Your task to perform on an android device: Go to Yahoo.com Image 0: 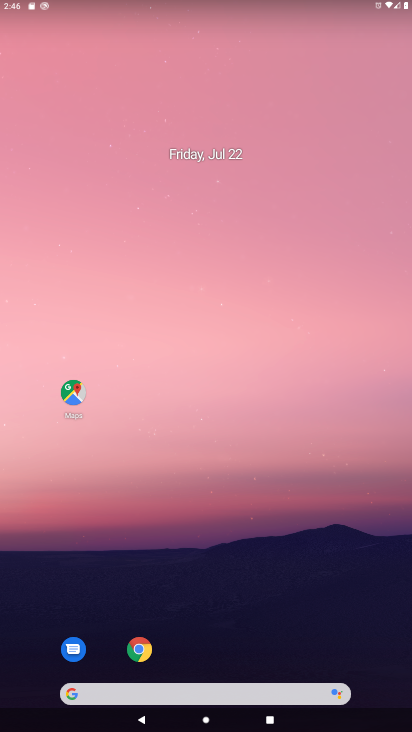
Step 0: click (138, 649)
Your task to perform on an android device: Go to Yahoo.com Image 1: 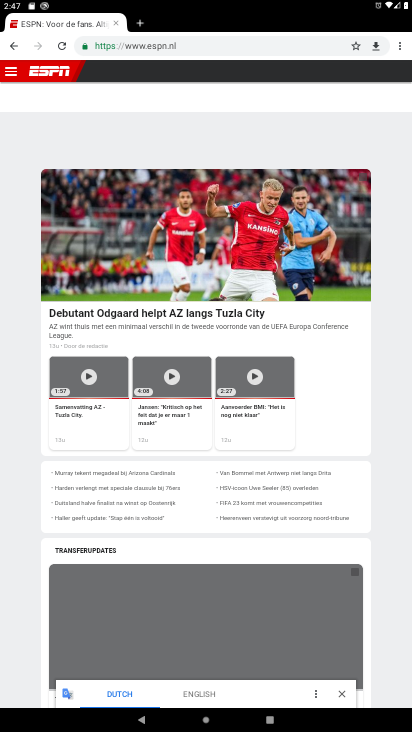
Step 1: click (399, 48)
Your task to perform on an android device: Go to Yahoo.com Image 2: 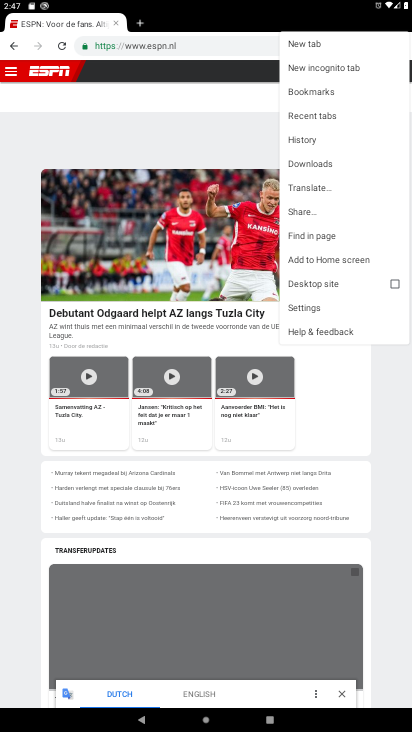
Step 2: click (301, 44)
Your task to perform on an android device: Go to Yahoo.com Image 3: 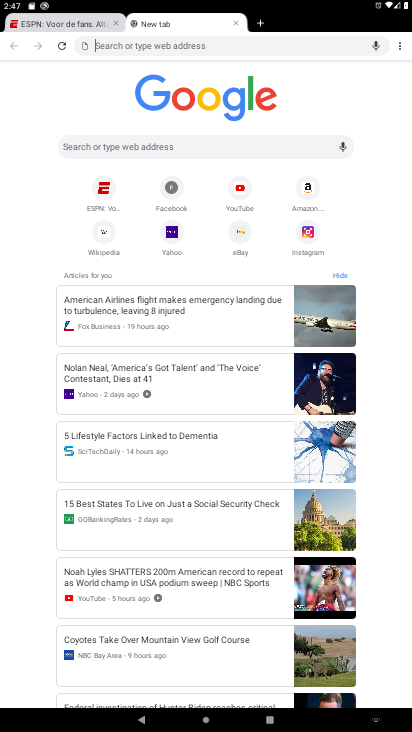
Step 3: click (170, 230)
Your task to perform on an android device: Go to Yahoo.com Image 4: 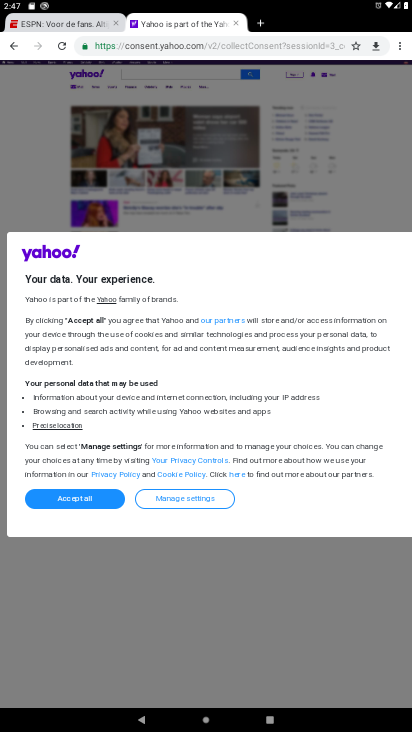
Step 4: click (67, 500)
Your task to perform on an android device: Go to Yahoo.com Image 5: 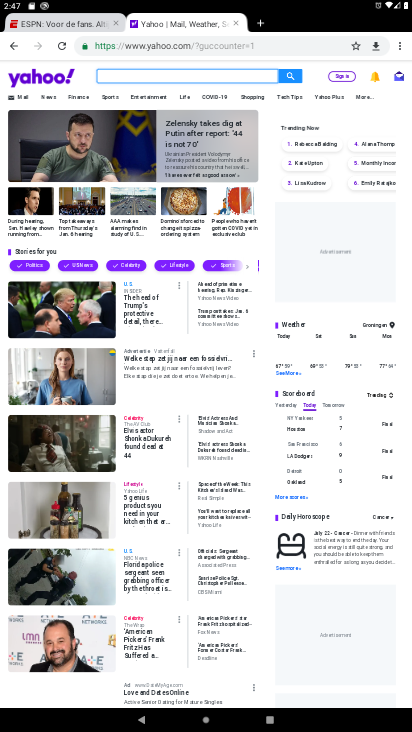
Step 5: task complete